Your task to perform on an android device: empty trash in google photos Image 0: 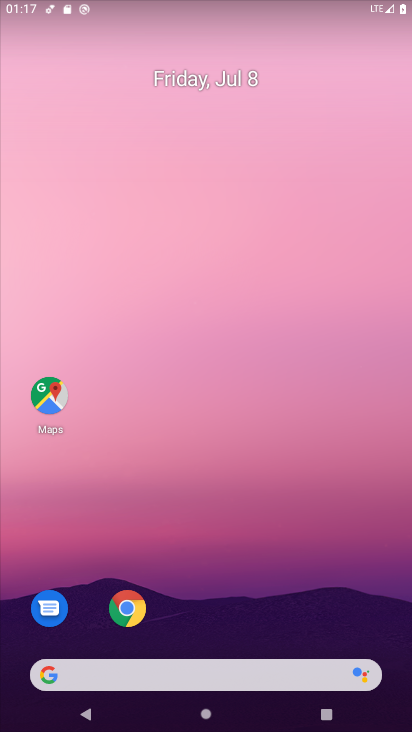
Step 0: drag from (203, 646) to (216, 259)
Your task to perform on an android device: empty trash in google photos Image 1: 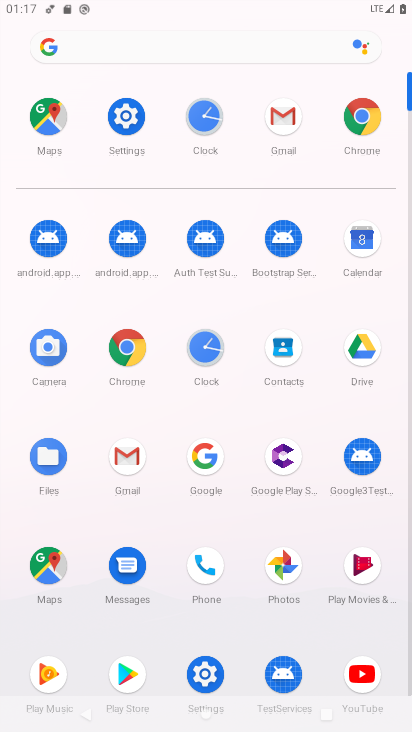
Step 1: click (269, 202)
Your task to perform on an android device: empty trash in google photos Image 2: 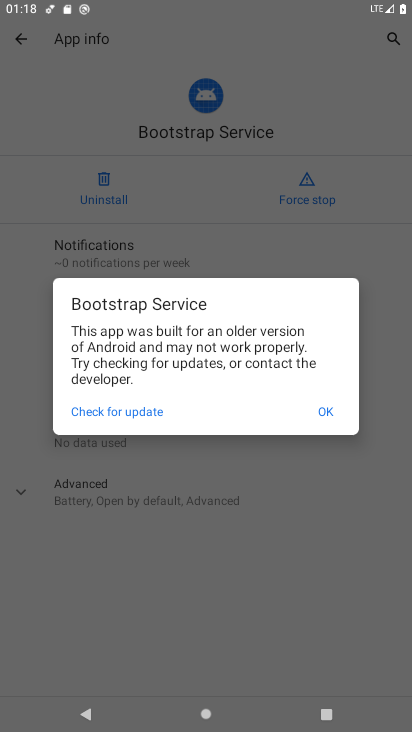
Step 2: click (324, 405)
Your task to perform on an android device: empty trash in google photos Image 3: 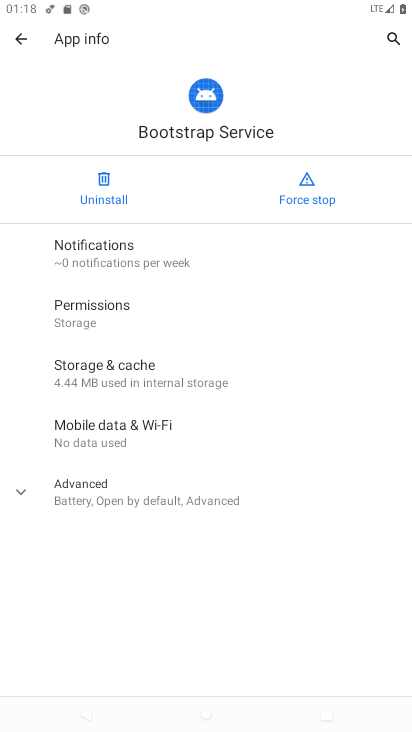
Step 3: click (13, 33)
Your task to perform on an android device: empty trash in google photos Image 4: 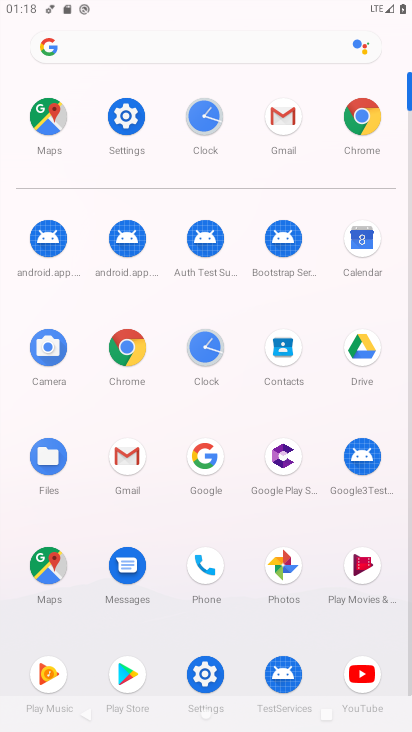
Step 4: click (273, 95)
Your task to perform on an android device: empty trash in google photos Image 5: 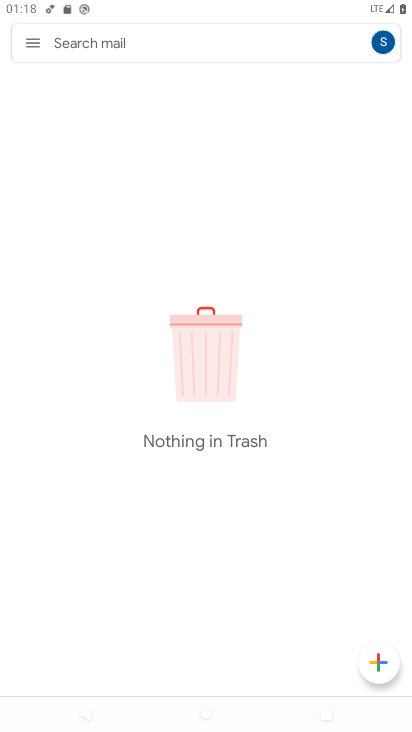
Step 5: click (279, 105)
Your task to perform on an android device: empty trash in google photos Image 6: 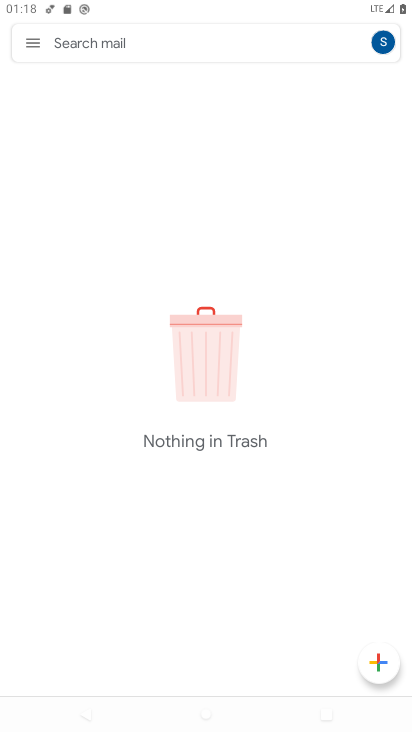
Step 6: click (29, 38)
Your task to perform on an android device: empty trash in google photos Image 7: 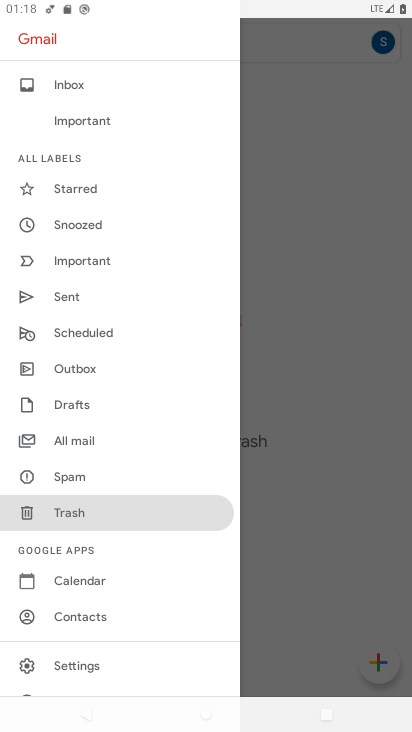
Step 7: click (115, 508)
Your task to perform on an android device: empty trash in google photos Image 8: 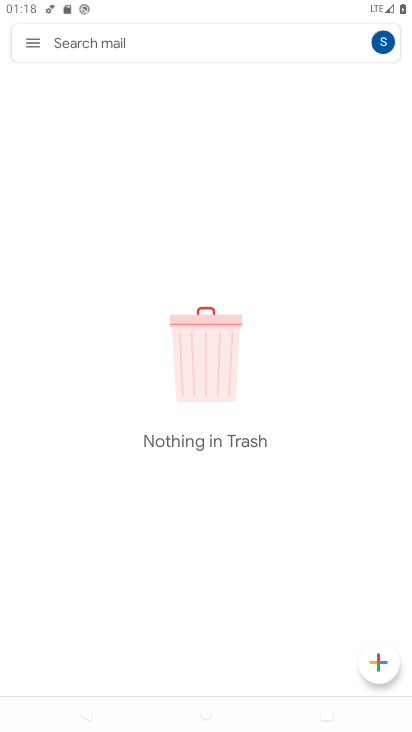
Step 8: task complete